Your task to perform on an android device: Go to calendar. Show me events next week Image 0: 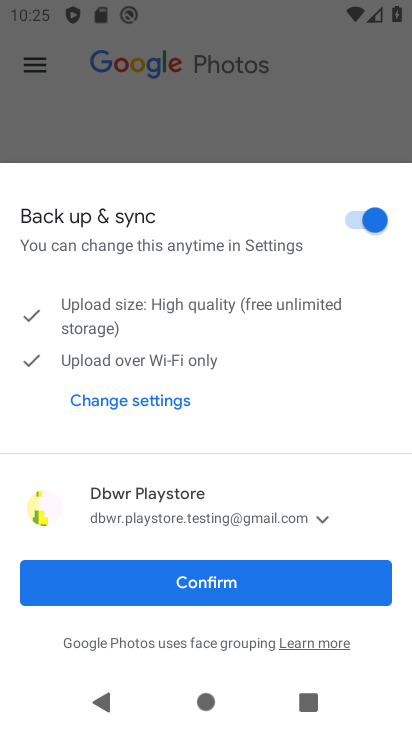
Step 0: press home button
Your task to perform on an android device: Go to calendar. Show me events next week Image 1: 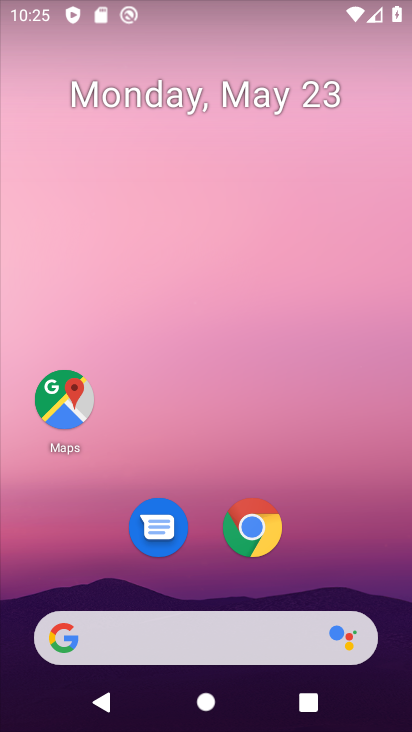
Step 1: drag from (389, 557) to (365, 219)
Your task to perform on an android device: Go to calendar. Show me events next week Image 2: 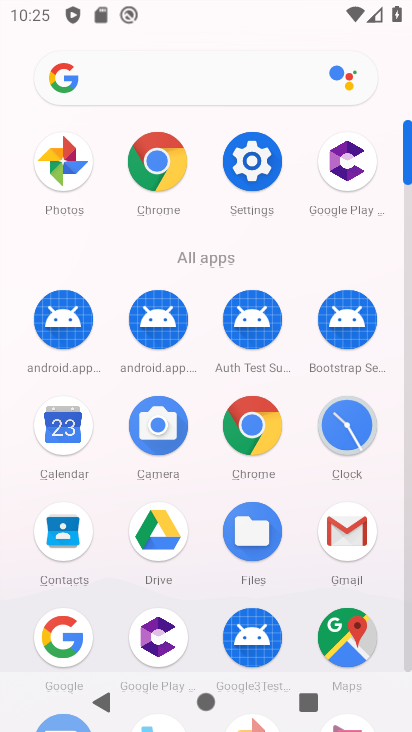
Step 2: click (39, 433)
Your task to perform on an android device: Go to calendar. Show me events next week Image 3: 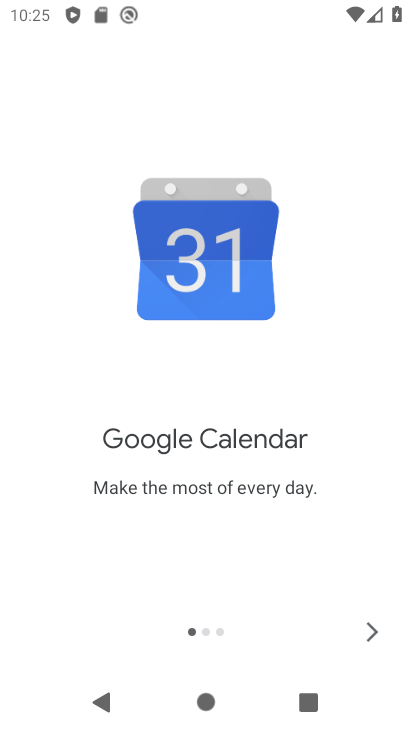
Step 3: click (368, 636)
Your task to perform on an android device: Go to calendar. Show me events next week Image 4: 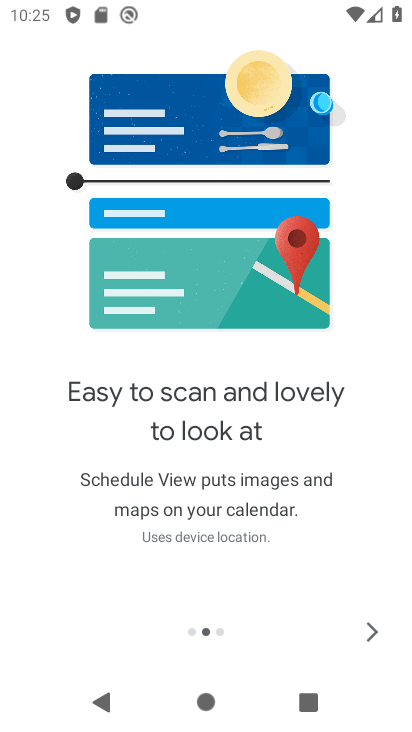
Step 4: click (368, 633)
Your task to perform on an android device: Go to calendar. Show me events next week Image 5: 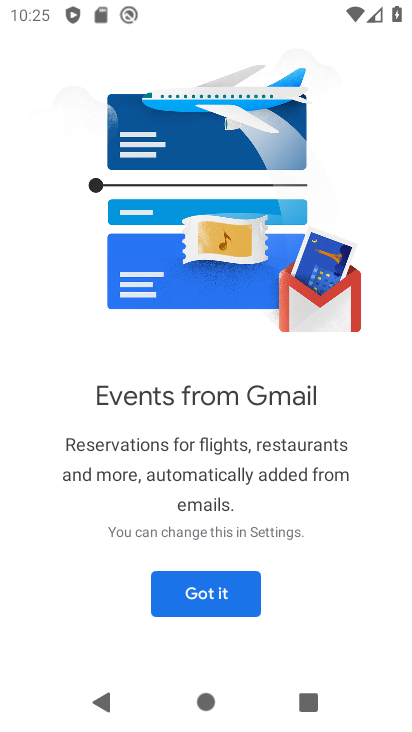
Step 5: click (230, 596)
Your task to perform on an android device: Go to calendar. Show me events next week Image 6: 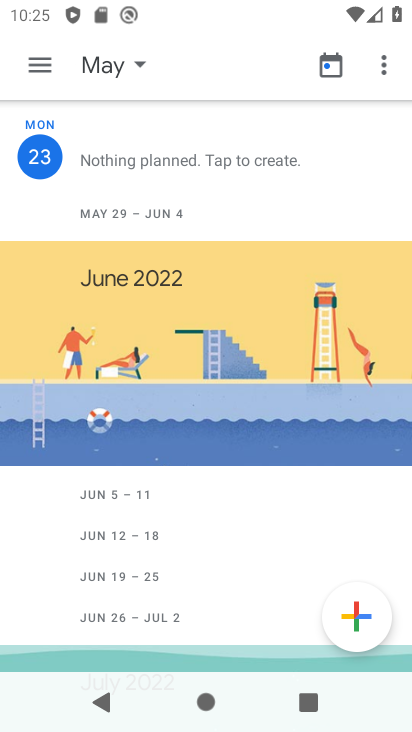
Step 6: click (103, 63)
Your task to perform on an android device: Go to calendar. Show me events next week Image 7: 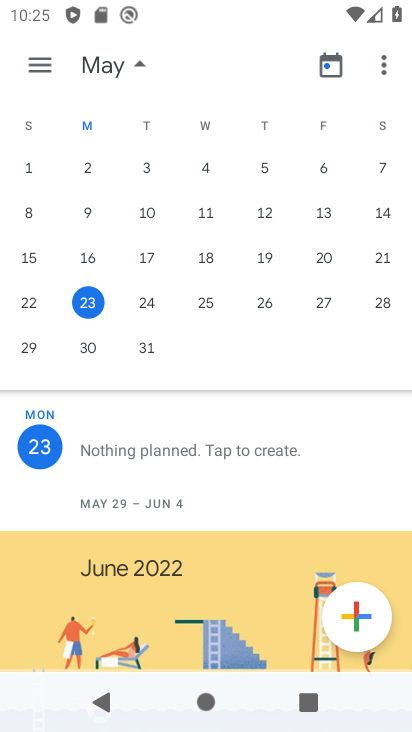
Step 7: click (30, 349)
Your task to perform on an android device: Go to calendar. Show me events next week Image 8: 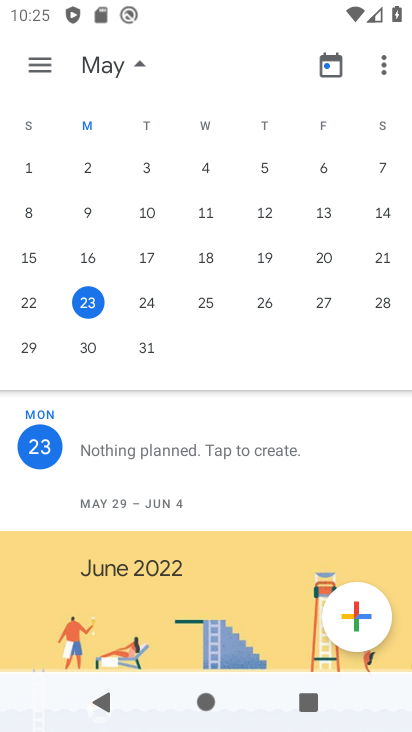
Step 8: click (30, 349)
Your task to perform on an android device: Go to calendar. Show me events next week Image 9: 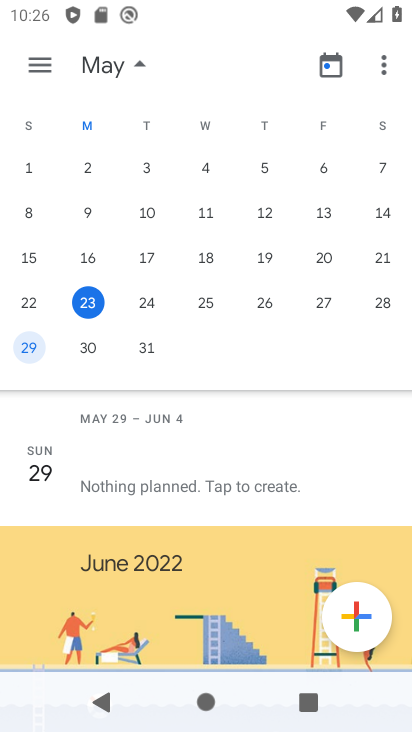
Step 9: task complete